Your task to perform on an android device: Search for seafood restaurants on Google Maps Image 0: 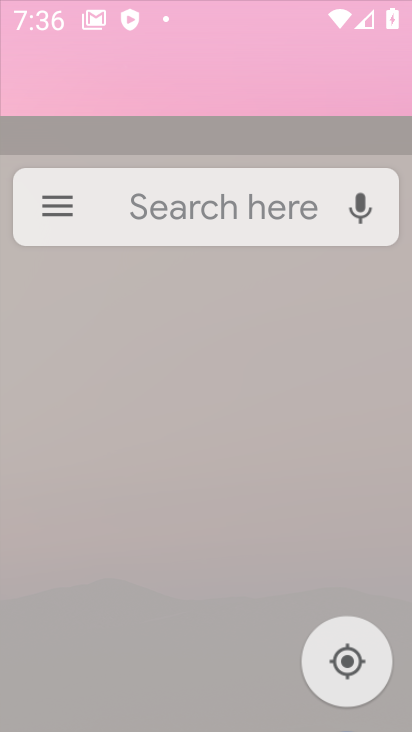
Step 0: press home button
Your task to perform on an android device: Search for seafood restaurants on Google Maps Image 1: 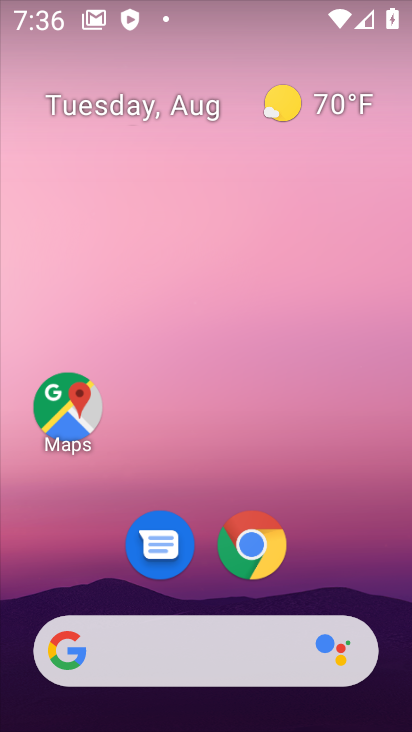
Step 1: drag from (232, 646) to (257, 52)
Your task to perform on an android device: Search for seafood restaurants on Google Maps Image 2: 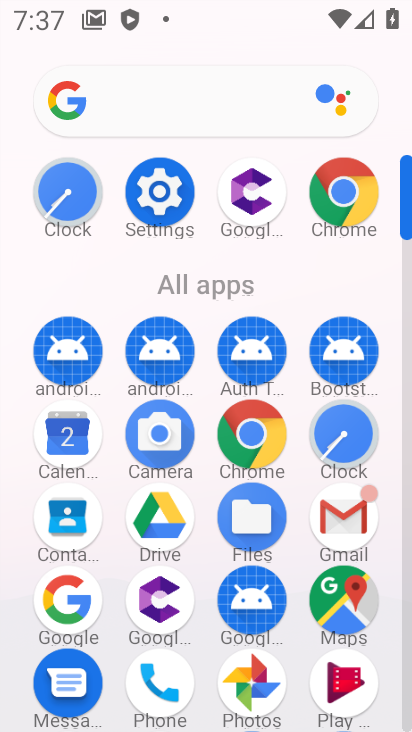
Step 2: click (340, 596)
Your task to perform on an android device: Search for seafood restaurants on Google Maps Image 3: 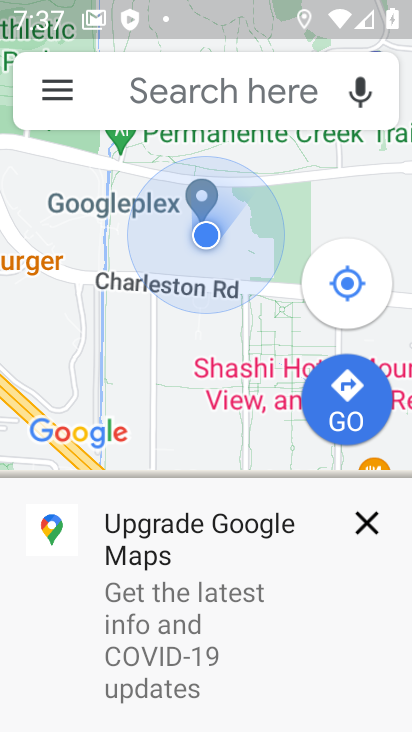
Step 3: click (179, 91)
Your task to perform on an android device: Search for seafood restaurants on Google Maps Image 4: 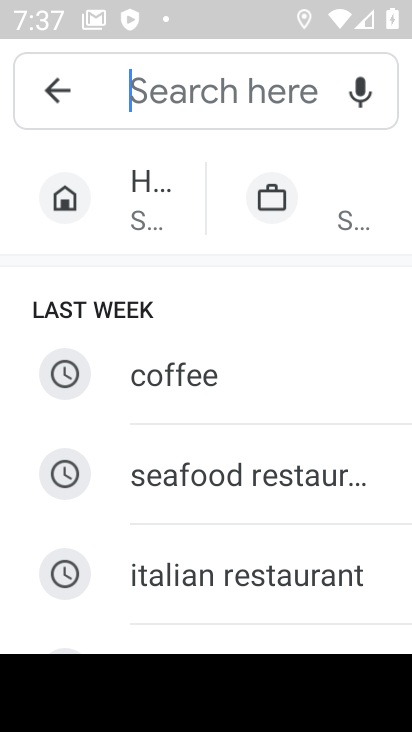
Step 4: click (258, 457)
Your task to perform on an android device: Search for seafood restaurants on Google Maps Image 5: 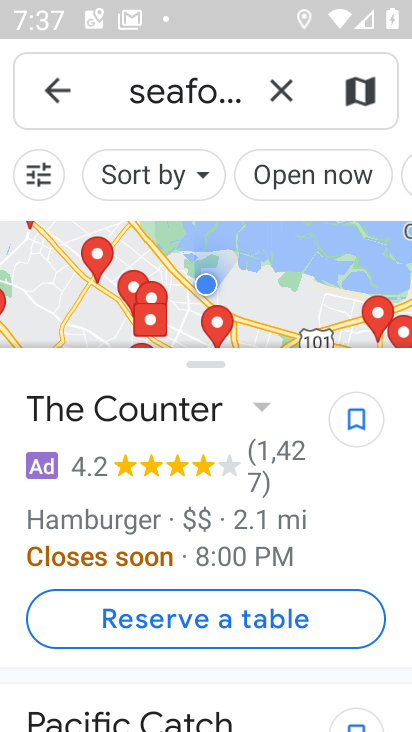
Step 5: task complete